Your task to perform on an android device: change timer sound Image 0: 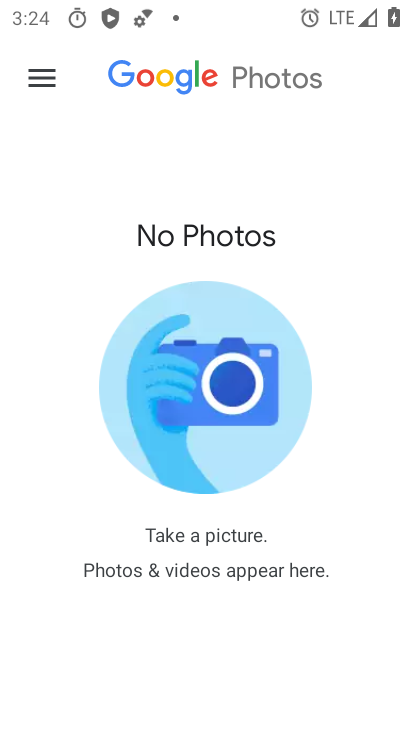
Step 0: press home button
Your task to perform on an android device: change timer sound Image 1: 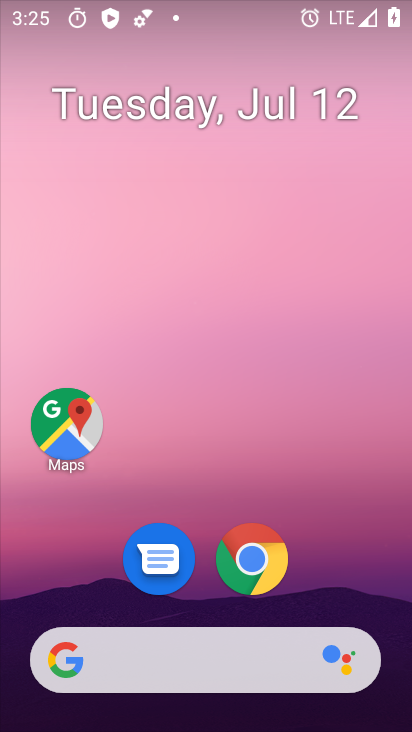
Step 1: drag from (373, 443) to (378, 106)
Your task to perform on an android device: change timer sound Image 2: 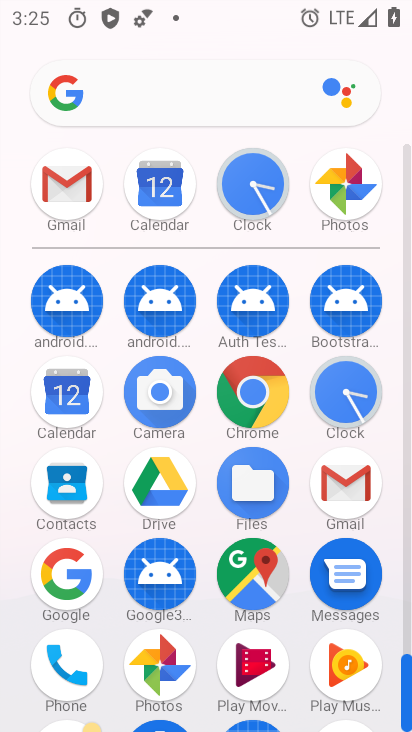
Step 2: click (356, 391)
Your task to perform on an android device: change timer sound Image 3: 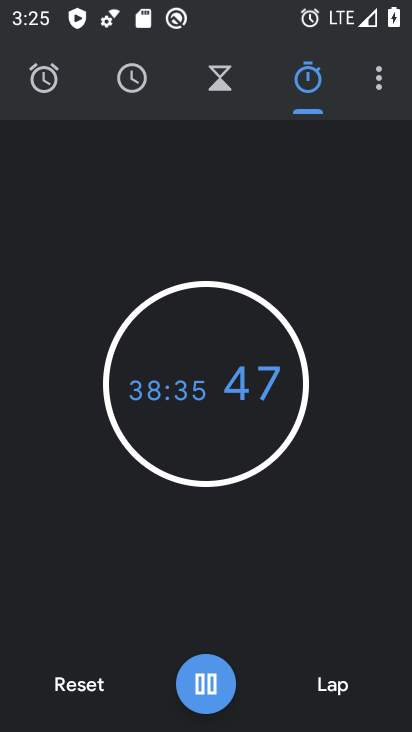
Step 3: click (377, 86)
Your task to perform on an android device: change timer sound Image 4: 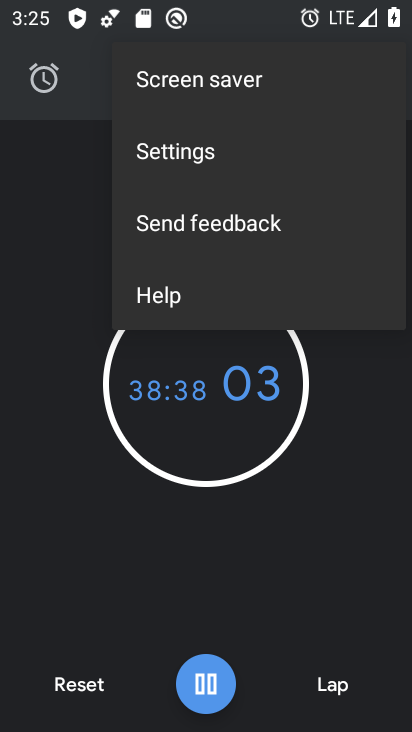
Step 4: click (302, 149)
Your task to perform on an android device: change timer sound Image 5: 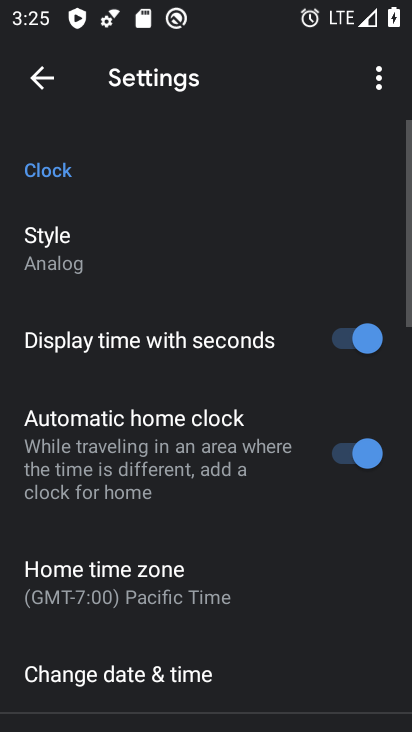
Step 5: drag from (302, 441) to (293, 364)
Your task to perform on an android device: change timer sound Image 6: 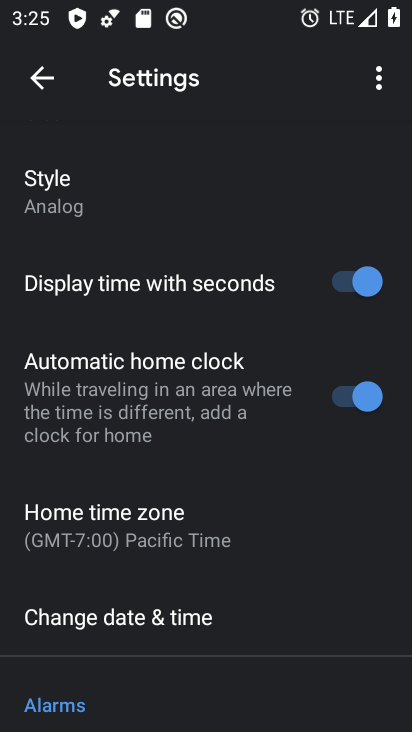
Step 6: drag from (289, 455) to (290, 347)
Your task to perform on an android device: change timer sound Image 7: 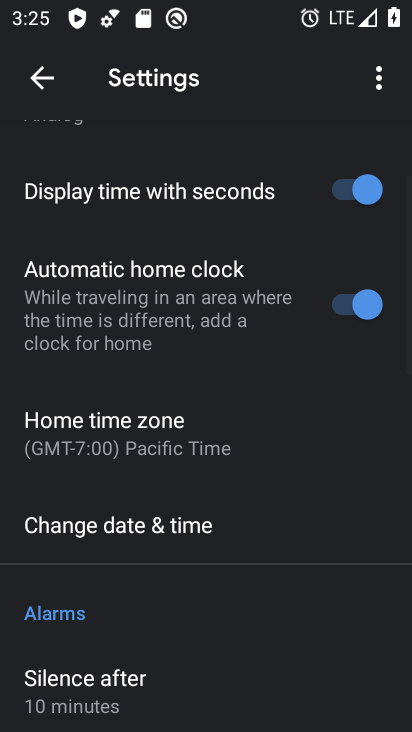
Step 7: drag from (290, 460) to (290, 382)
Your task to perform on an android device: change timer sound Image 8: 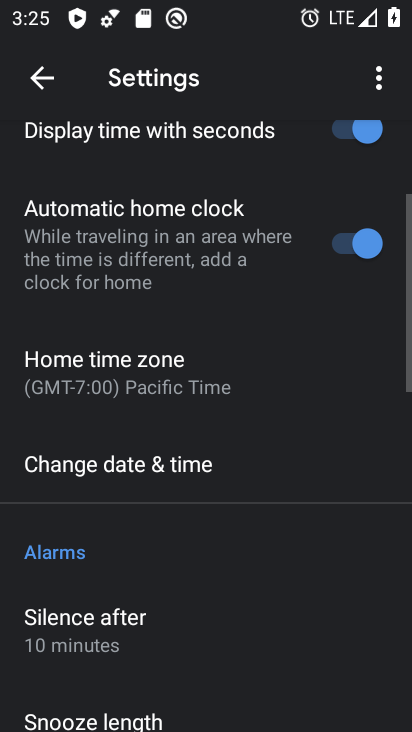
Step 8: drag from (300, 456) to (299, 384)
Your task to perform on an android device: change timer sound Image 9: 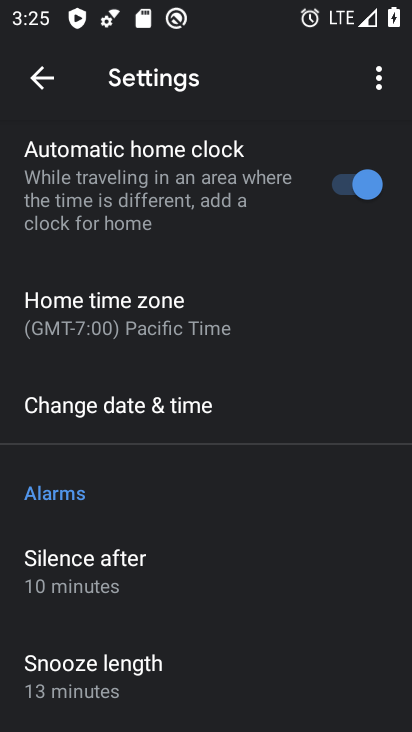
Step 9: drag from (295, 470) to (294, 407)
Your task to perform on an android device: change timer sound Image 10: 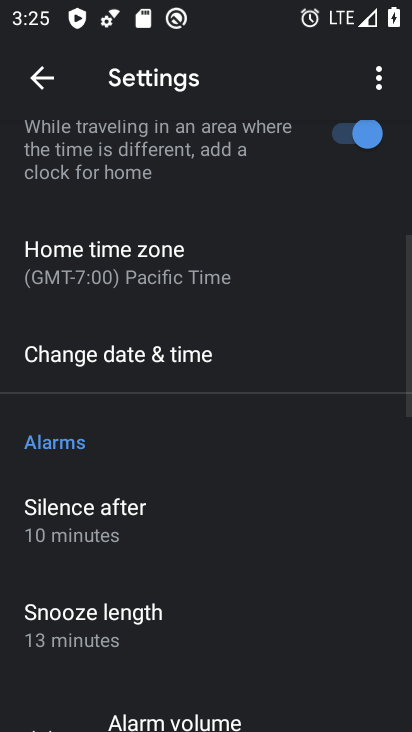
Step 10: drag from (294, 476) to (301, 407)
Your task to perform on an android device: change timer sound Image 11: 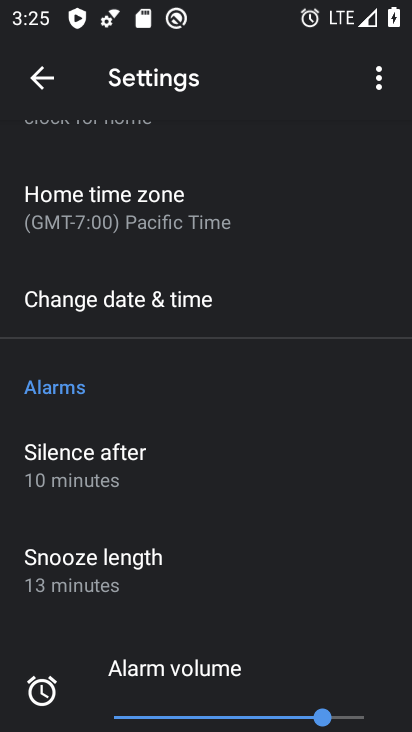
Step 11: drag from (298, 498) to (305, 419)
Your task to perform on an android device: change timer sound Image 12: 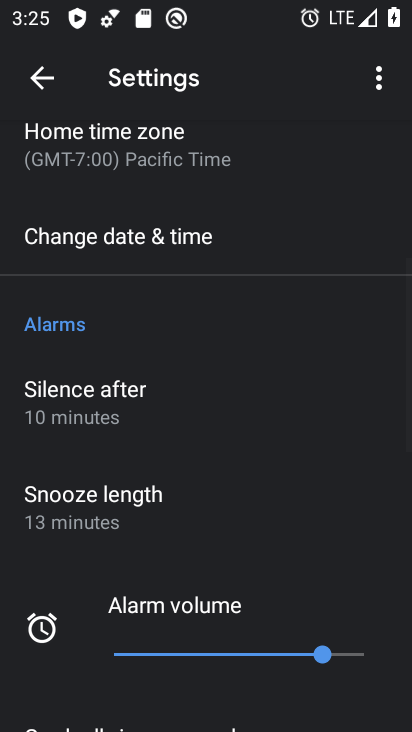
Step 12: drag from (308, 505) to (306, 432)
Your task to perform on an android device: change timer sound Image 13: 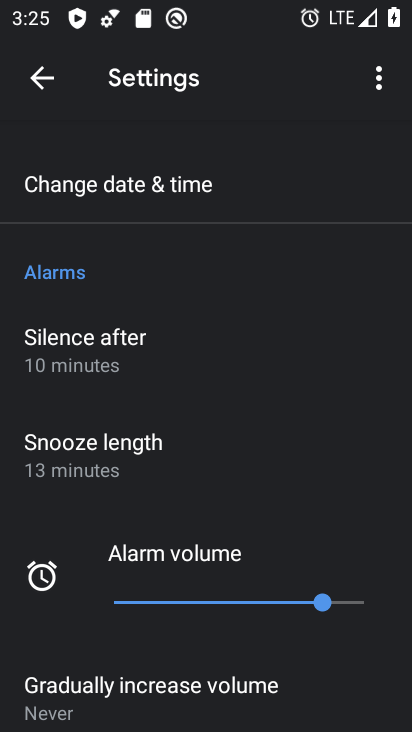
Step 13: drag from (325, 478) to (320, 368)
Your task to perform on an android device: change timer sound Image 14: 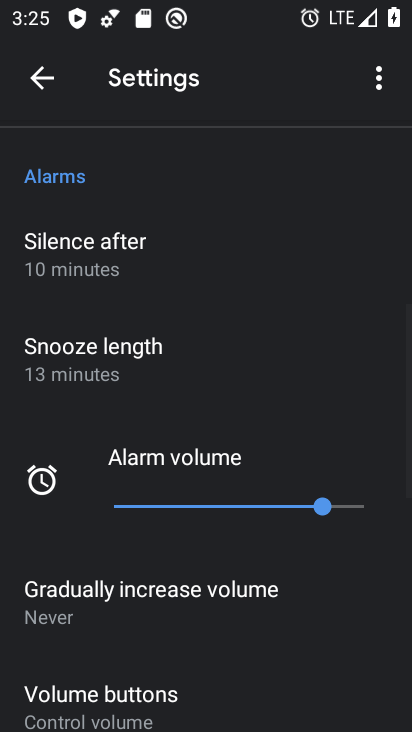
Step 14: drag from (314, 437) to (311, 383)
Your task to perform on an android device: change timer sound Image 15: 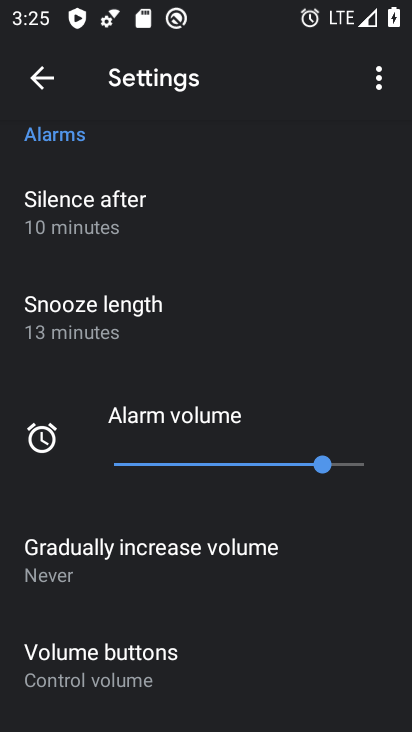
Step 15: drag from (353, 524) to (348, 422)
Your task to perform on an android device: change timer sound Image 16: 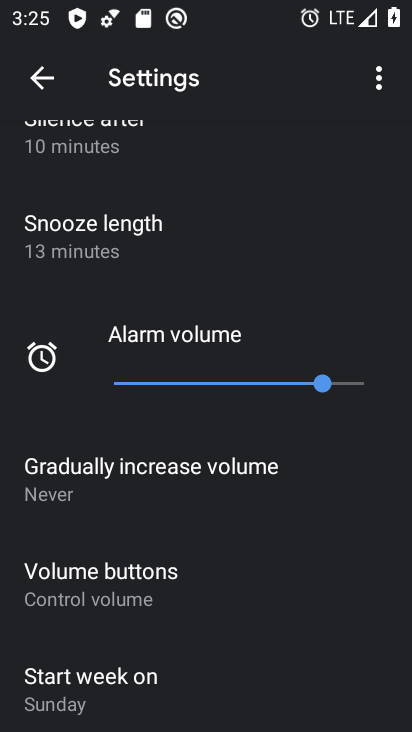
Step 16: drag from (347, 538) to (348, 444)
Your task to perform on an android device: change timer sound Image 17: 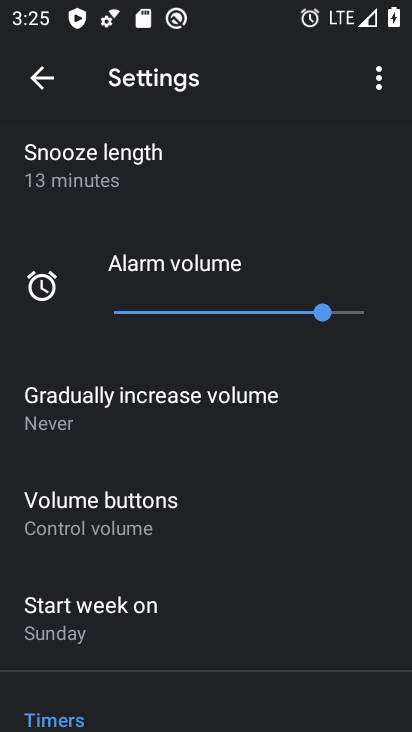
Step 17: drag from (342, 522) to (337, 294)
Your task to perform on an android device: change timer sound Image 18: 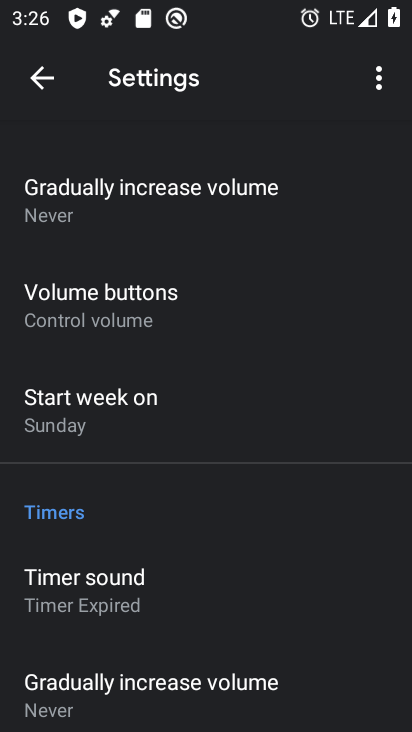
Step 18: click (221, 605)
Your task to perform on an android device: change timer sound Image 19: 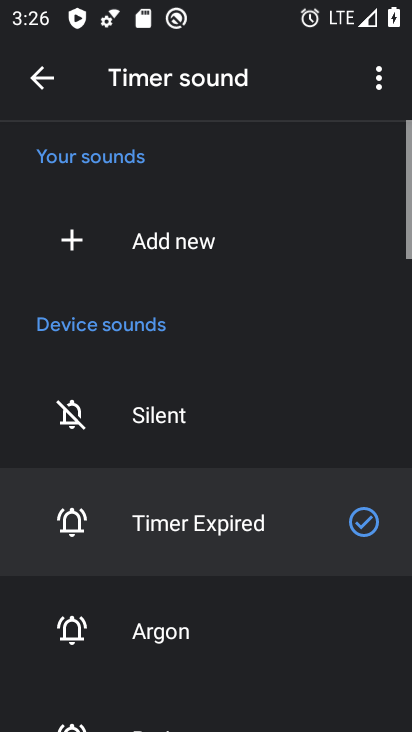
Step 19: click (170, 638)
Your task to perform on an android device: change timer sound Image 20: 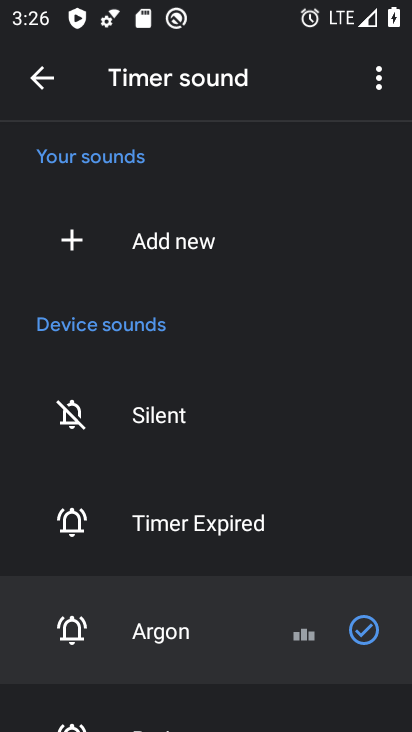
Step 20: task complete